Your task to perform on an android device: Open location settings Image 0: 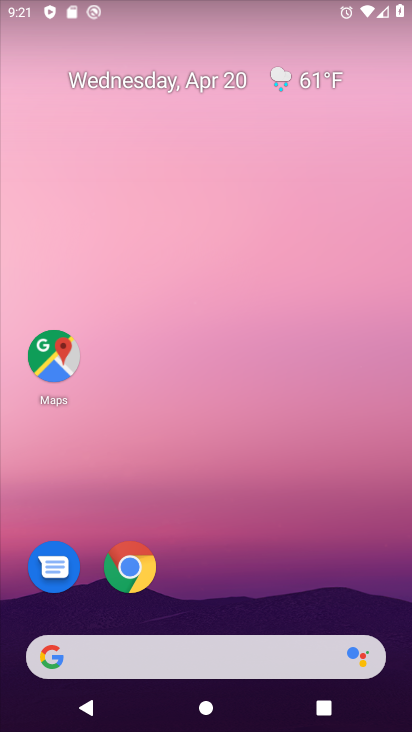
Step 0: drag from (225, 598) to (216, 171)
Your task to perform on an android device: Open location settings Image 1: 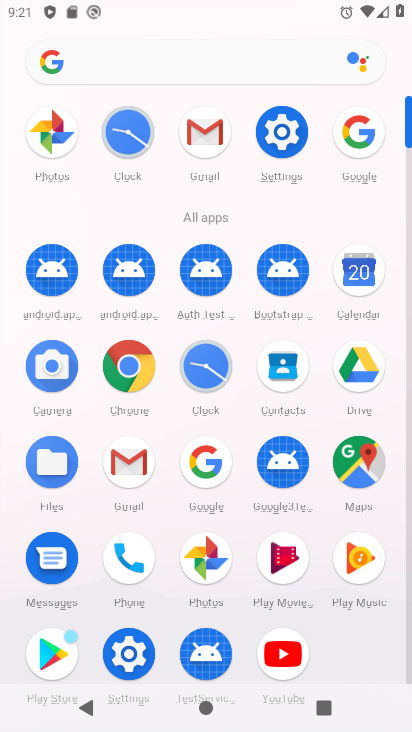
Step 1: click (278, 135)
Your task to perform on an android device: Open location settings Image 2: 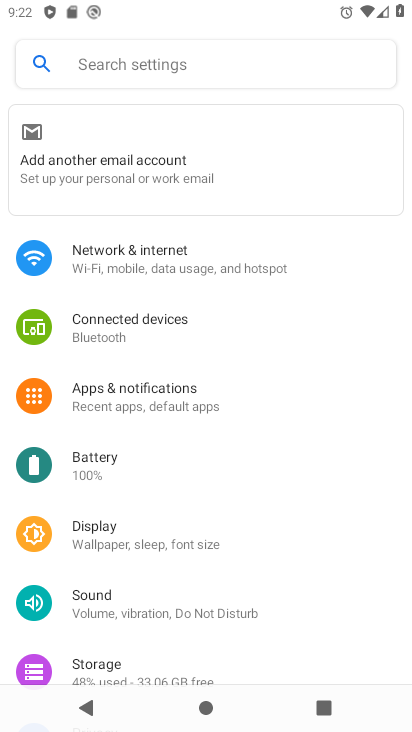
Step 2: drag from (215, 642) to (211, 293)
Your task to perform on an android device: Open location settings Image 3: 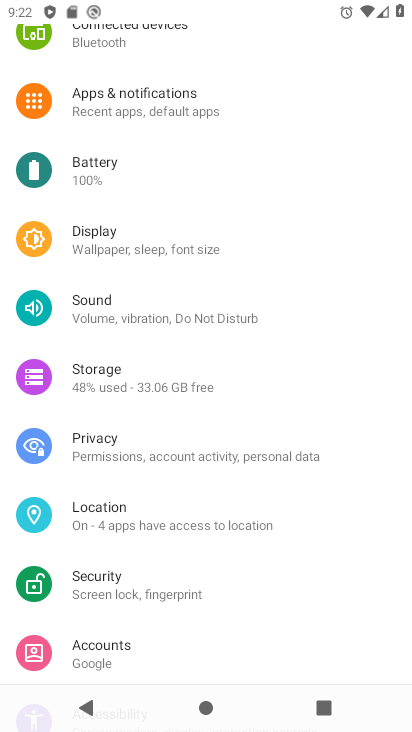
Step 3: click (145, 519)
Your task to perform on an android device: Open location settings Image 4: 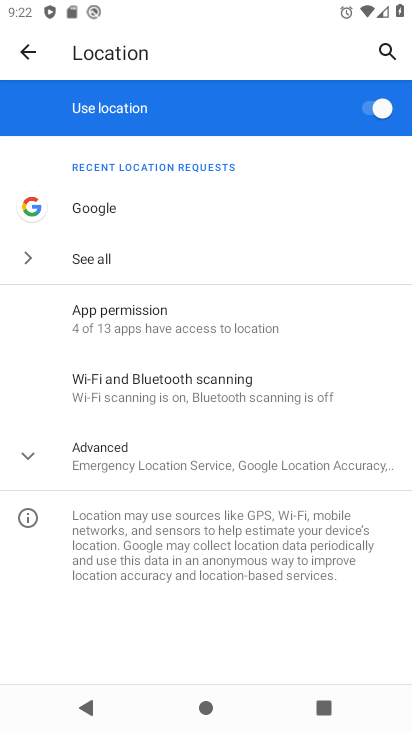
Step 4: click (143, 449)
Your task to perform on an android device: Open location settings Image 5: 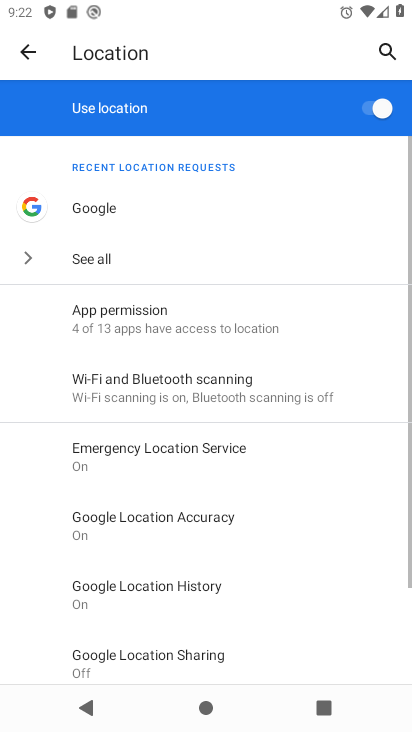
Step 5: task complete